Your task to perform on an android device: Is it going to rain this weekend? Image 0: 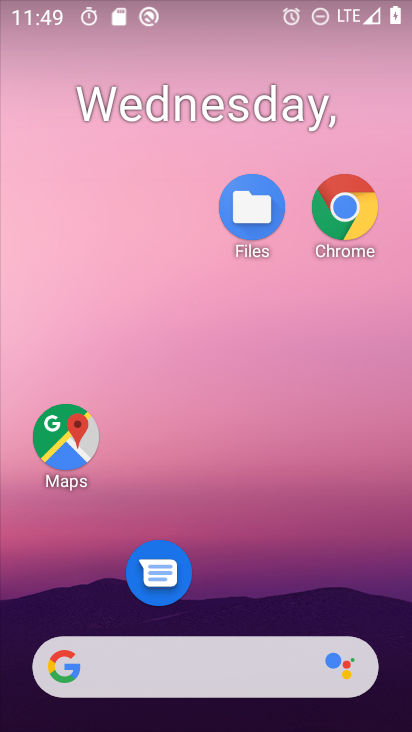
Step 0: drag from (217, 648) to (280, 161)
Your task to perform on an android device: Is it going to rain this weekend? Image 1: 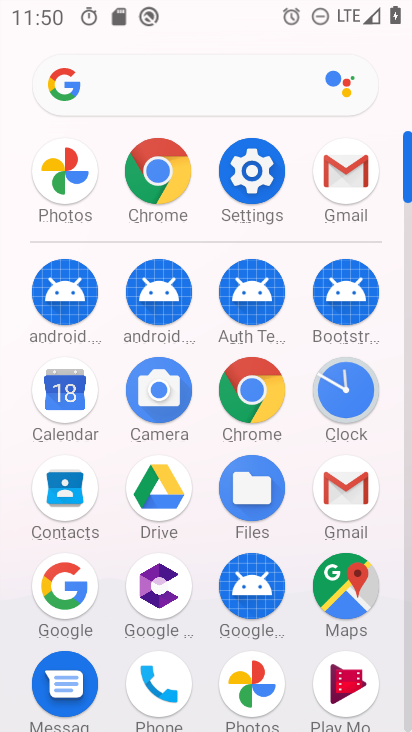
Step 1: click (61, 608)
Your task to perform on an android device: Is it going to rain this weekend? Image 2: 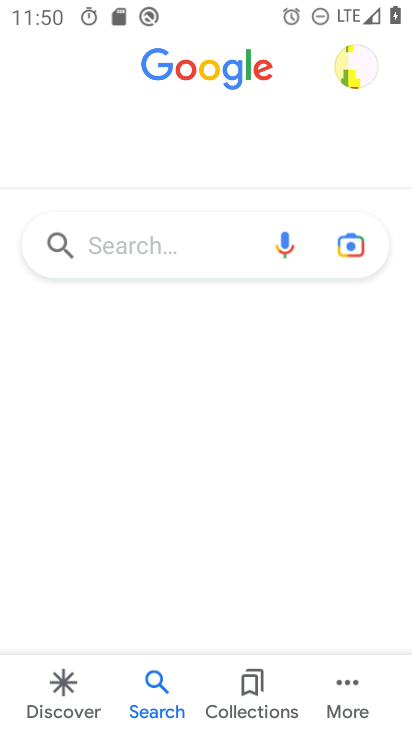
Step 2: click (196, 243)
Your task to perform on an android device: Is it going to rain this weekend? Image 3: 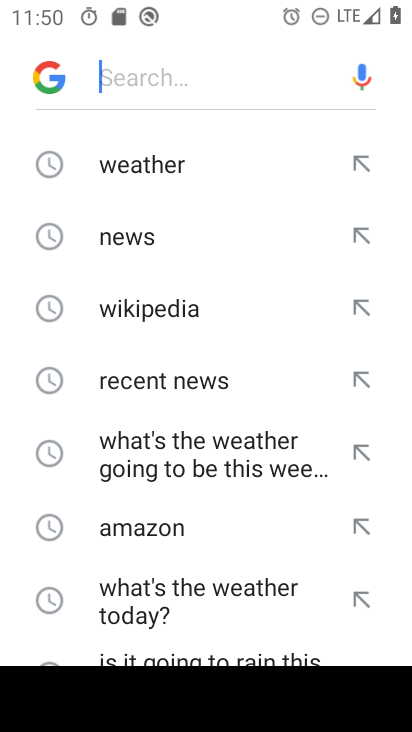
Step 3: click (228, 162)
Your task to perform on an android device: Is it going to rain this weekend? Image 4: 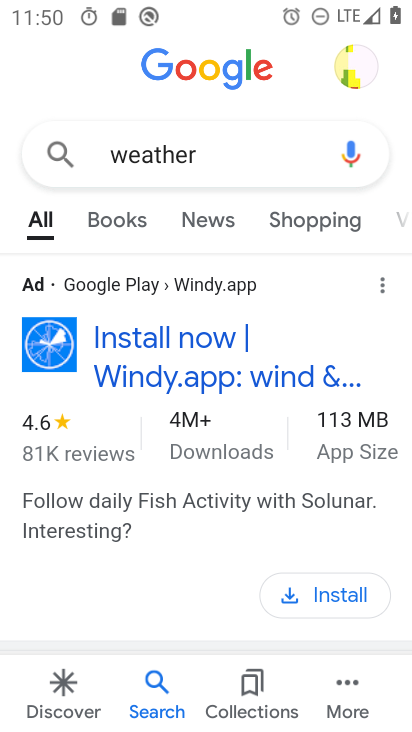
Step 4: drag from (164, 579) to (248, 170)
Your task to perform on an android device: Is it going to rain this weekend? Image 5: 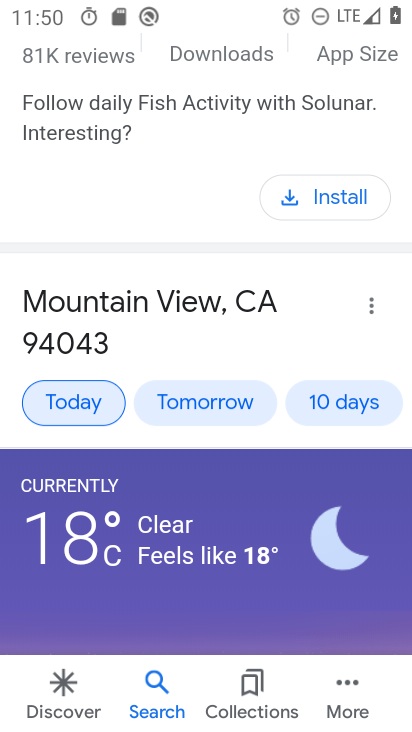
Step 5: click (362, 390)
Your task to perform on an android device: Is it going to rain this weekend? Image 6: 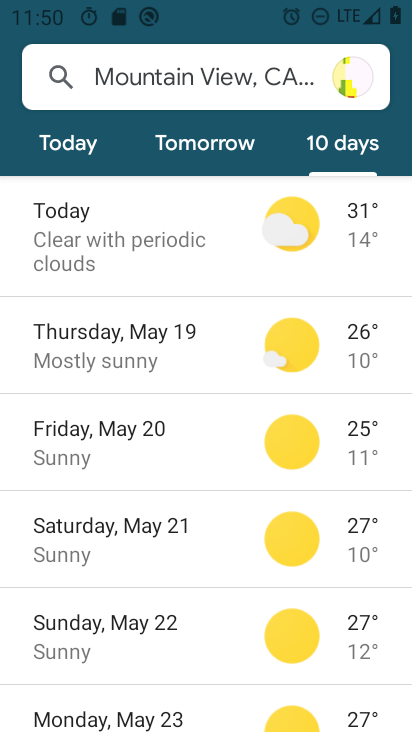
Step 6: task complete